Your task to perform on an android device: Search for pizza restaurants on Maps Image 0: 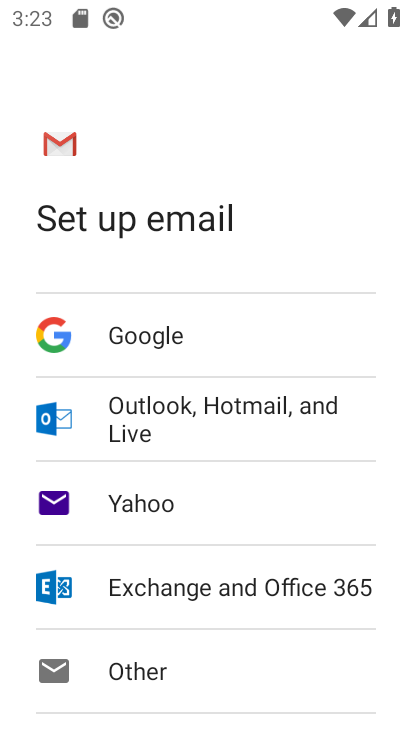
Step 0: press back button
Your task to perform on an android device: Search for pizza restaurants on Maps Image 1: 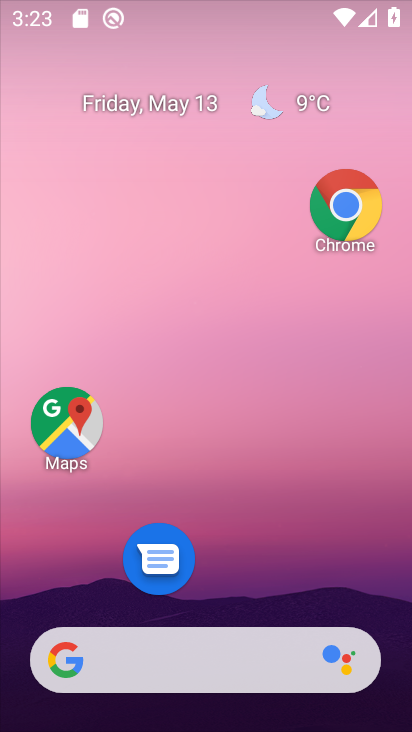
Step 1: click (91, 399)
Your task to perform on an android device: Search for pizza restaurants on Maps Image 2: 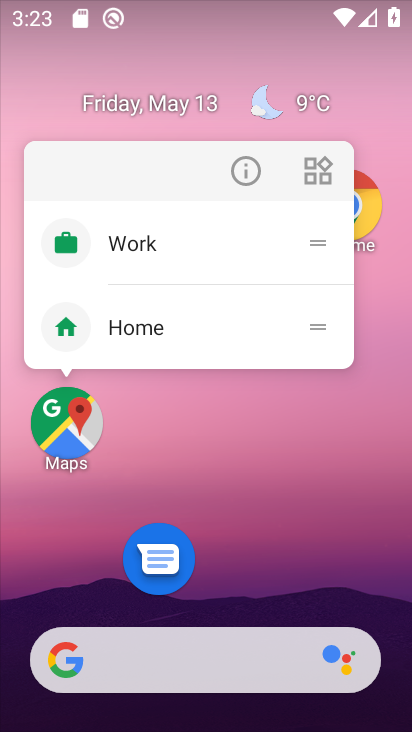
Step 2: click (31, 414)
Your task to perform on an android device: Search for pizza restaurants on Maps Image 3: 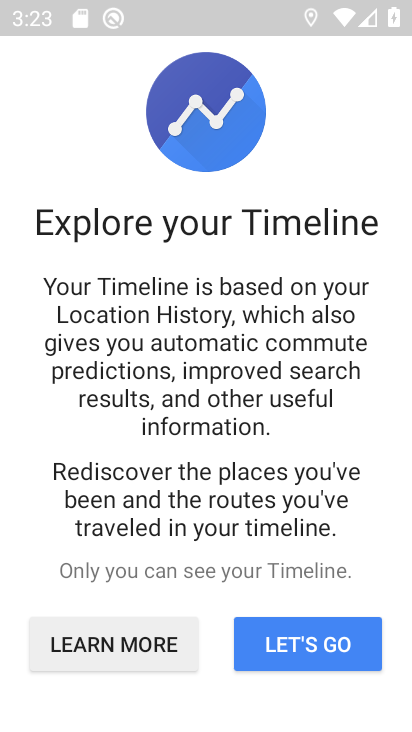
Step 3: click (319, 645)
Your task to perform on an android device: Search for pizza restaurants on Maps Image 4: 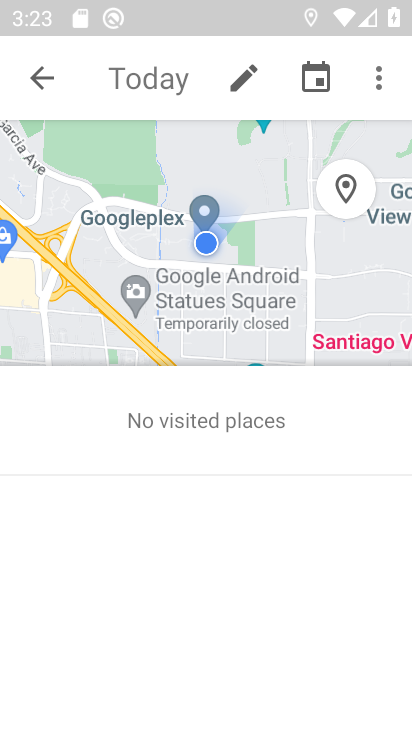
Step 4: click (44, 77)
Your task to perform on an android device: Search for pizza restaurants on Maps Image 5: 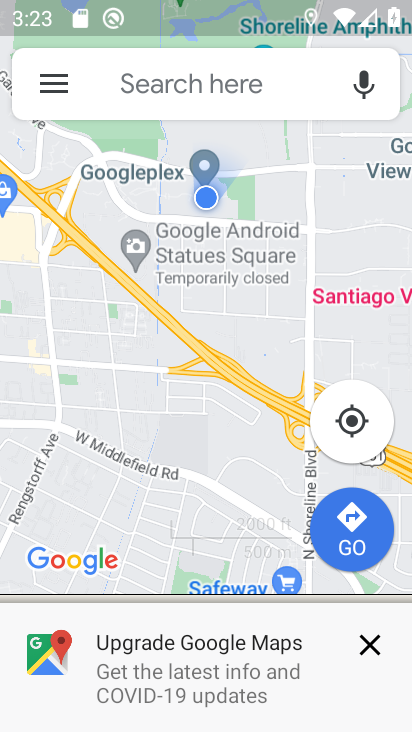
Step 5: click (183, 42)
Your task to perform on an android device: Search for pizza restaurants on Maps Image 6: 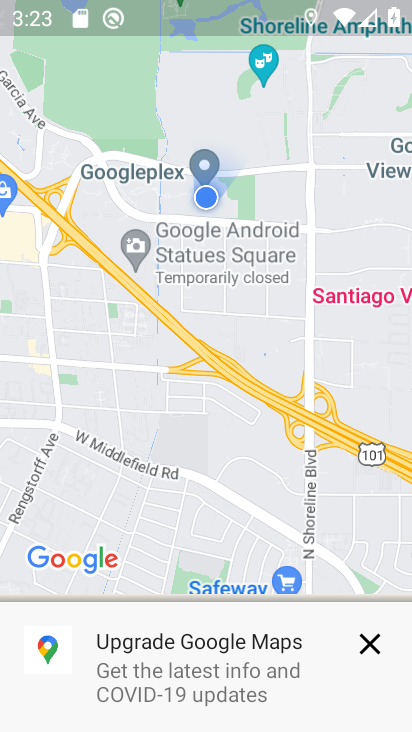
Step 6: drag from (204, 129) to (192, 581)
Your task to perform on an android device: Search for pizza restaurants on Maps Image 7: 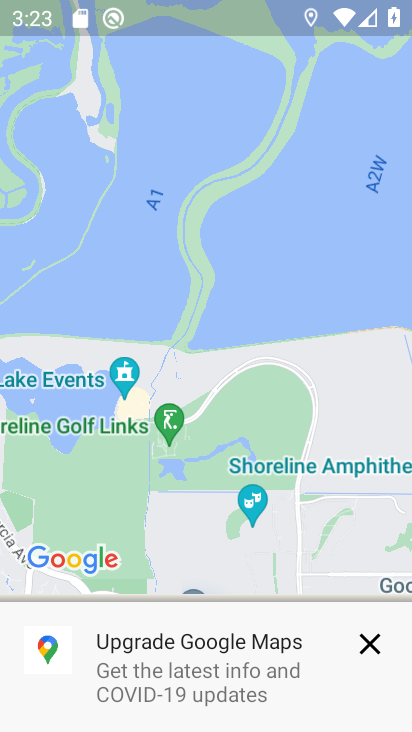
Step 7: press back button
Your task to perform on an android device: Search for pizza restaurants on Maps Image 8: 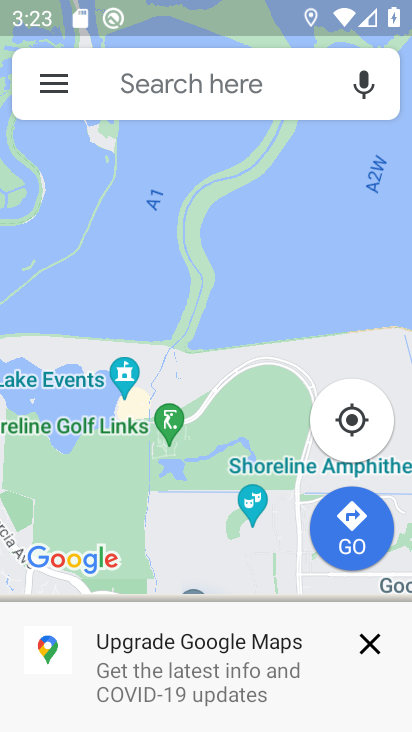
Step 8: click (192, 71)
Your task to perform on an android device: Search for pizza restaurants on Maps Image 9: 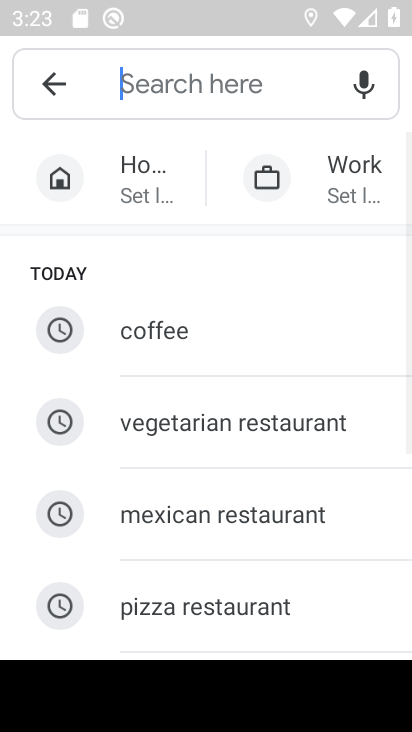
Step 9: click (172, 601)
Your task to perform on an android device: Search for pizza restaurants on Maps Image 10: 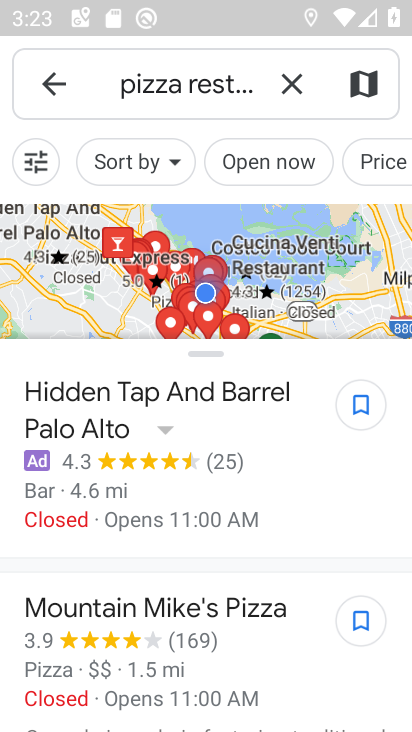
Step 10: task complete